Your task to perform on an android device: change keyboard looks Image 0: 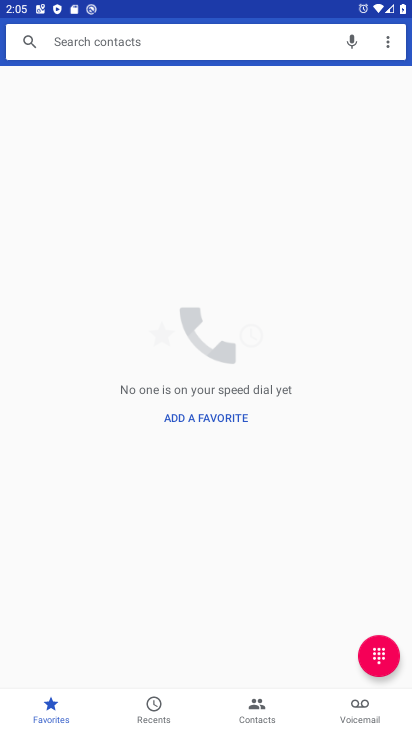
Step 0: press home button
Your task to perform on an android device: change keyboard looks Image 1: 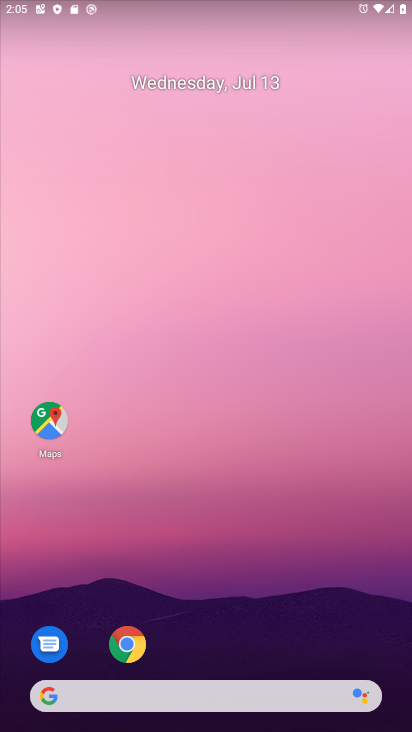
Step 1: drag from (216, 686) to (162, 68)
Your task to perform on an android device: change keyboard looks Image 2: 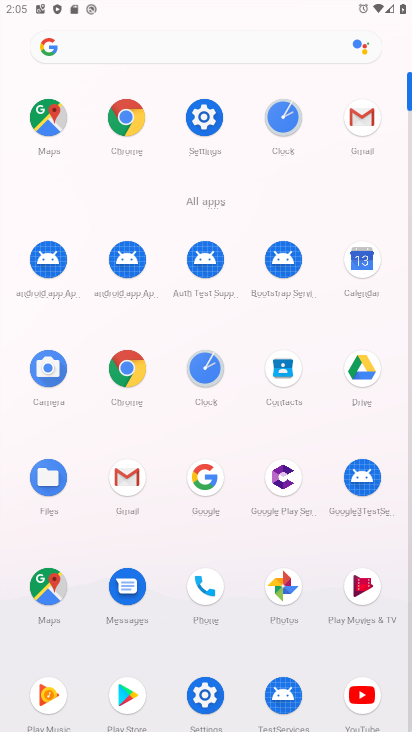
Step 2: click (200, 101)
Your task to perform on an android device: change keyboard looks Image 3: 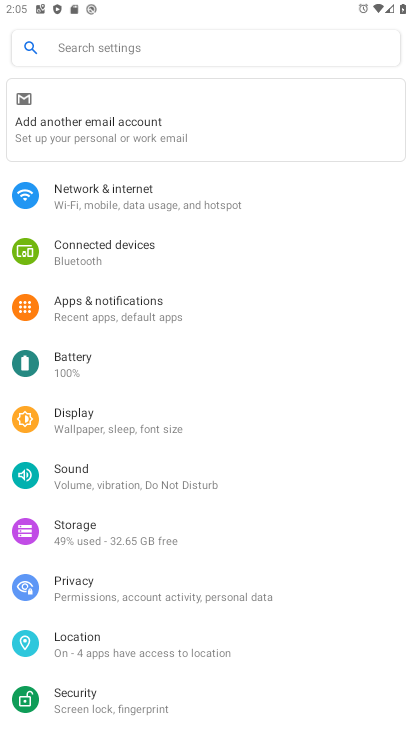
Step 3: drag from (153, 569) to (173, 361)
Your task to perform on an android device: change keyboard looks Image 4: 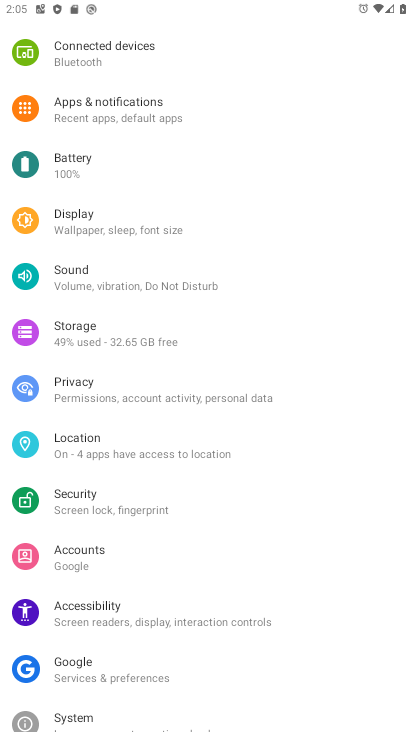
Step 4: drag from (100, 643) to (73, 334)
Your task to perform on an android device: change keyboard looks Image 5: 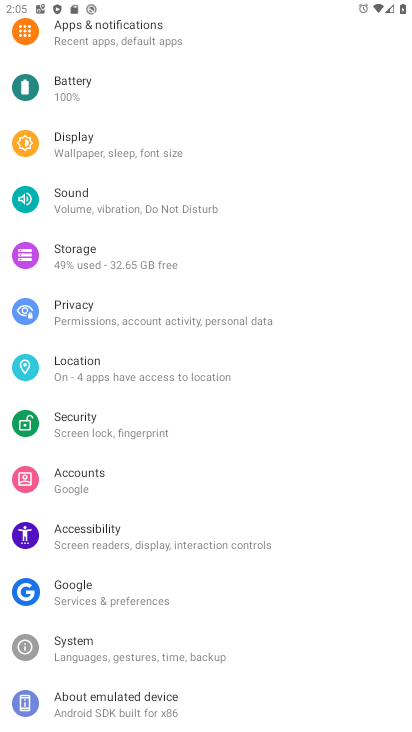
Step 5: click (74, 647)
Your task to perform on an android device: change keyboard looks Image 6: 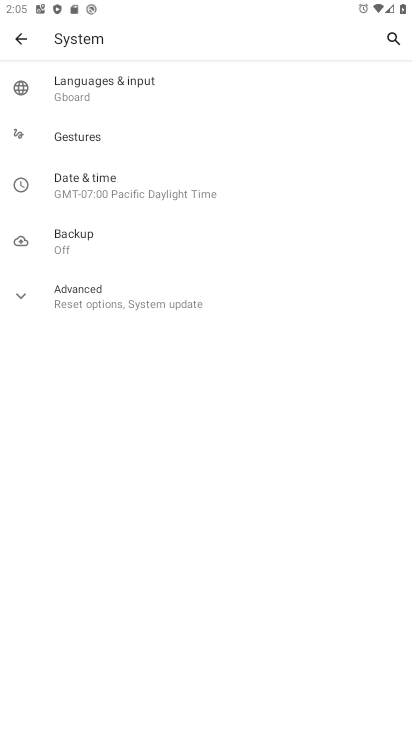
Step 6: click (89, 79)
Your task to perform on an android device: change keyboard looks Image 7: 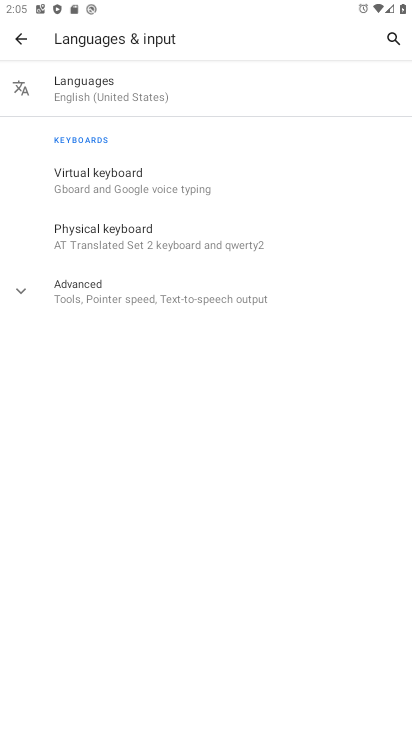
Step 7: click (108, 192)
Your task to perform on an android device: change keyboard looks Image 8: 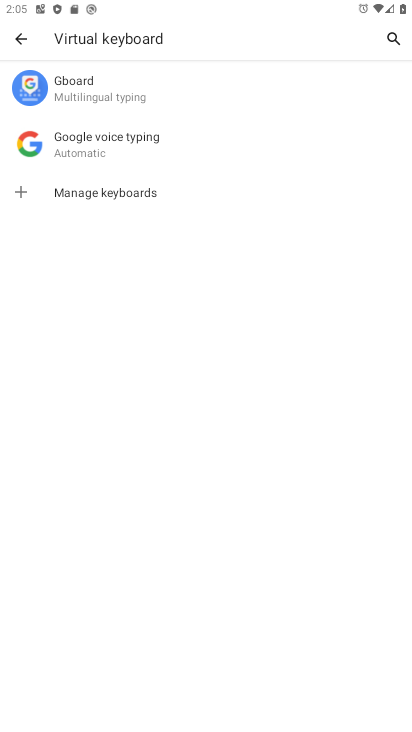
Step 8: click (67, 71)
Your task to perform on an android device: change keyboard looks Image 9: 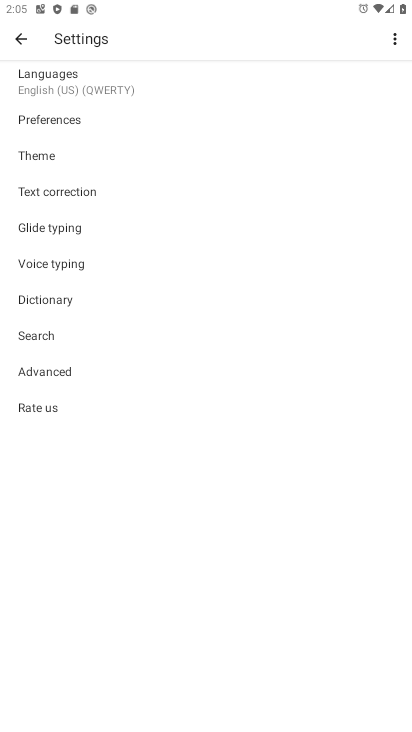
Step 9: click (73, 159)
Your task to perform on an android device: change keyboard looks Image 10: 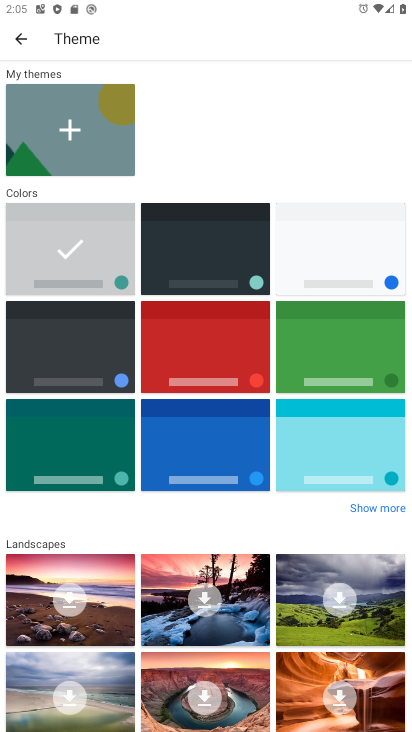
Step 10: click (116, 227)
Your task to perform on an android device: change keyboard looks Image 11: 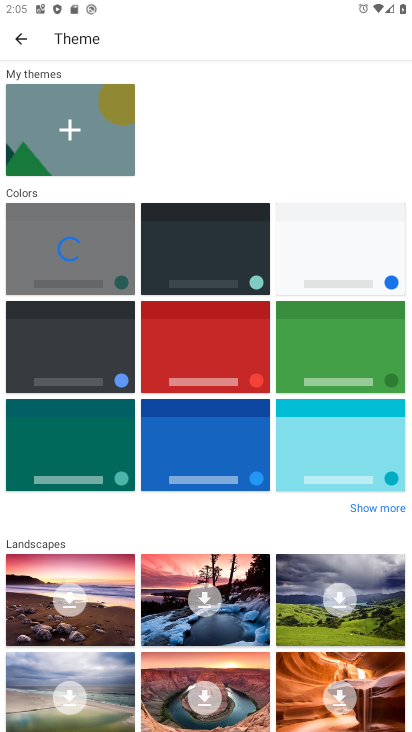
Step 11: click (191, 247)
Your task to perform on an android device: change keyboard looks Image 12: 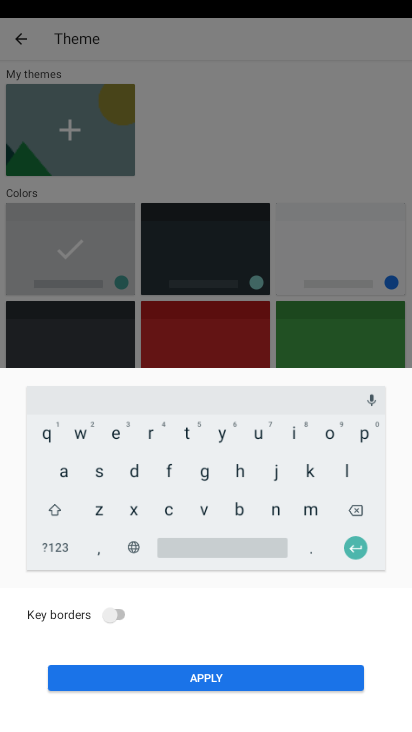
Step 12: click (195, 256)
Your task to perform on an android device: change keyboard looks Image 13: 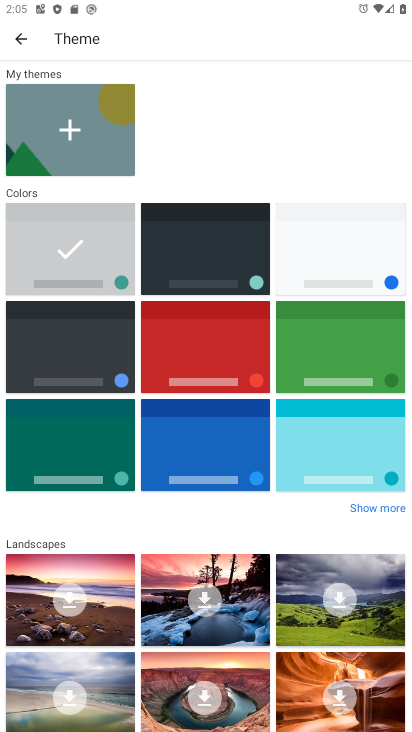
Step 13: click (195, 256)
Your task to perform on an android device: change keyboard looks Image 14: 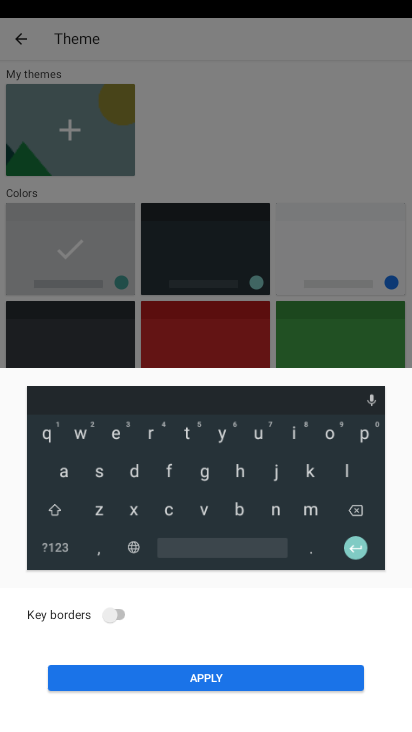
Step 14: click (246, 678)
Your task to perform on an android device: change keyboard looks Image 15: 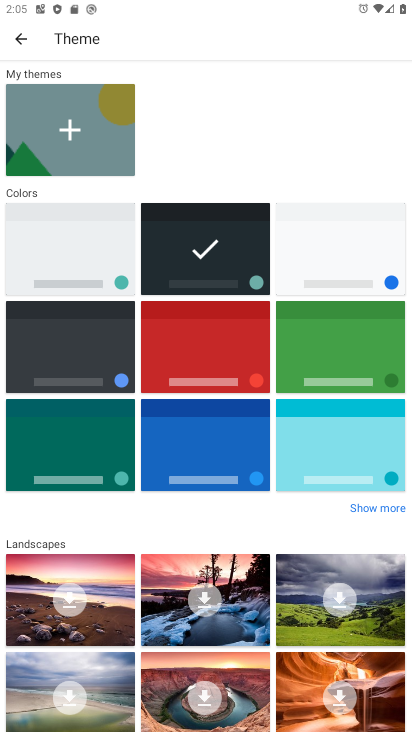
Step 15: task complete